Your task to perform on an android device: Go to settings Image 0: 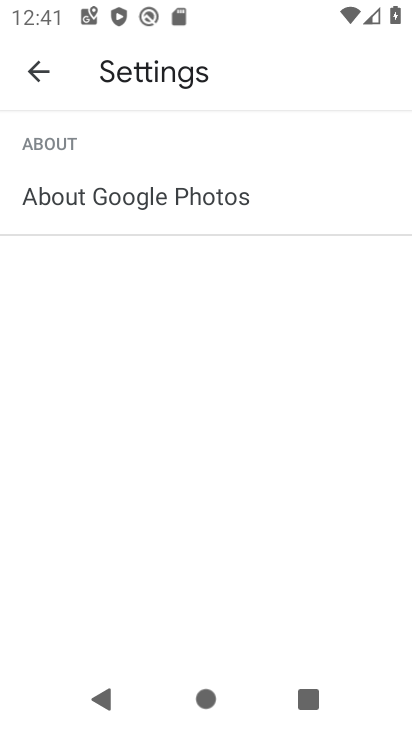
Step 0: press home button
Your task to perform on an android device: Go to settings Image 1: 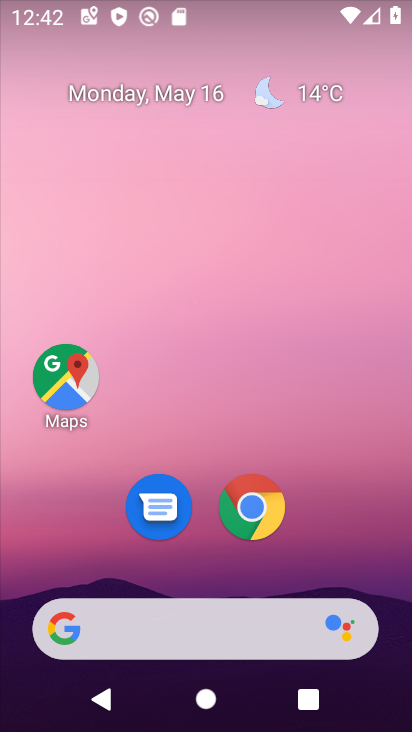
Step 1: drag from (233, 535) to (247, 130)
Your task to perform on an android device: Go to settings Image 2: 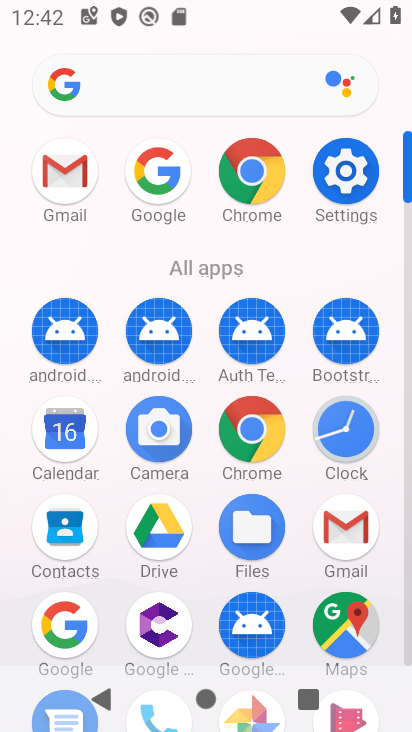
Step 2: click (335, 185)
Your task to perform on an android device: Go to settings Image 3: 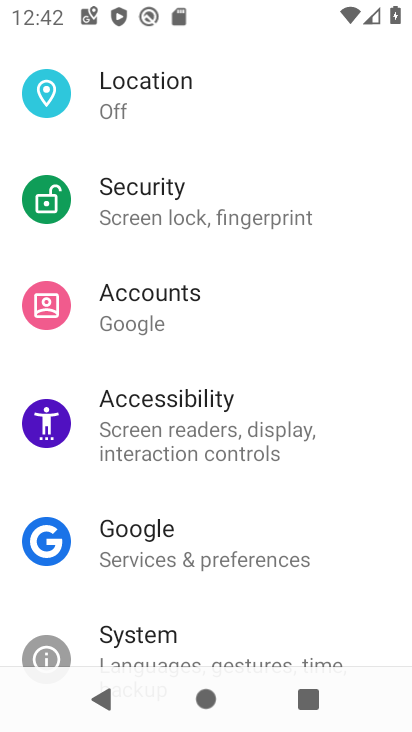
Step 3: task complete